Your task to perform on an android device: Open notification settings Image 0: 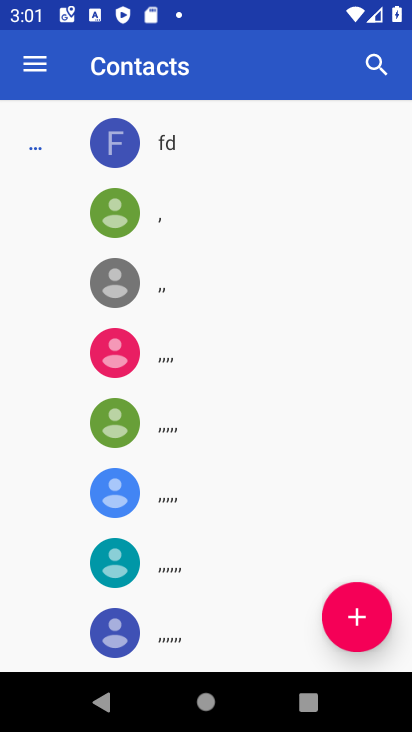
Step 0: press home button
Your task to perform on an android device: Open notification settings Image 1: 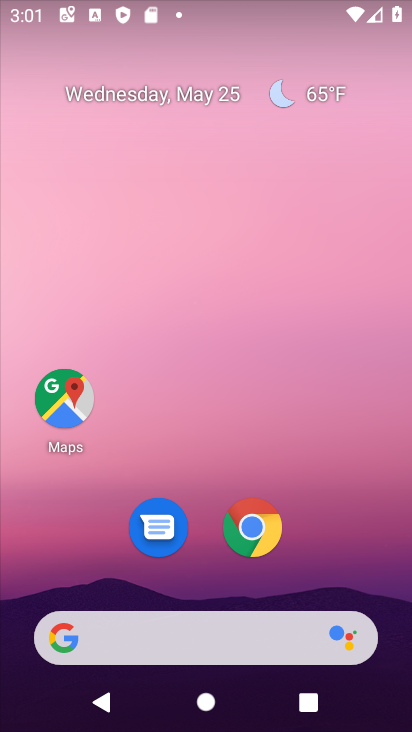
Step 1: drag from (289, 518) to (295, 24)
Your task to perform on an android device: Open notification settings Image 2: 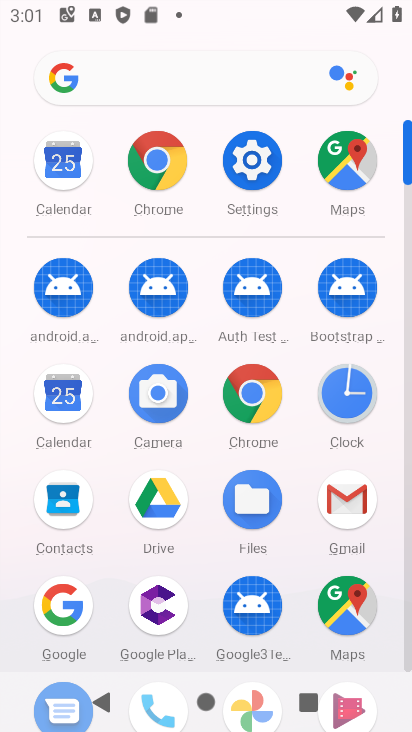
Step 2: click (267, 163)
Your task to perform on an android device: Open notification settings Image 3: 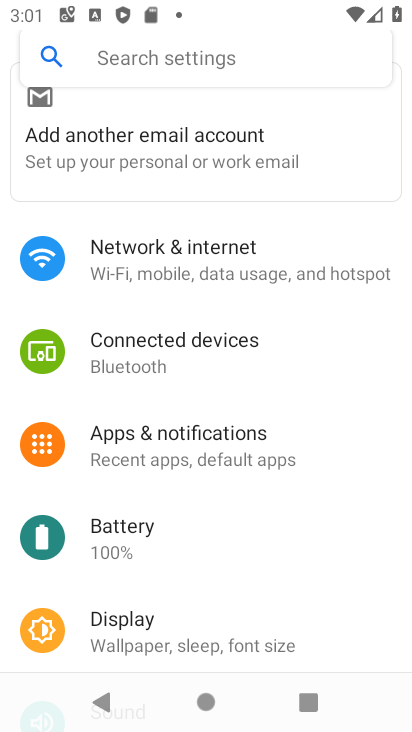
Step 3: click (260, 452)
Your task to perform on an android device: Open notification settings Image 4: 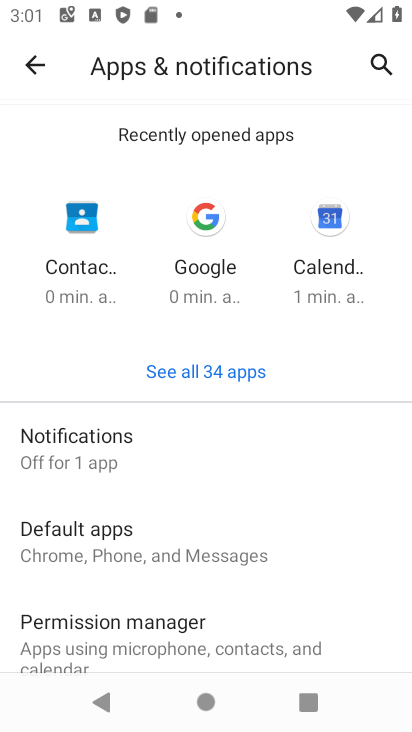
Step 4: task complete